Your task to perform on an android device: Go to wifi settings Image 0: 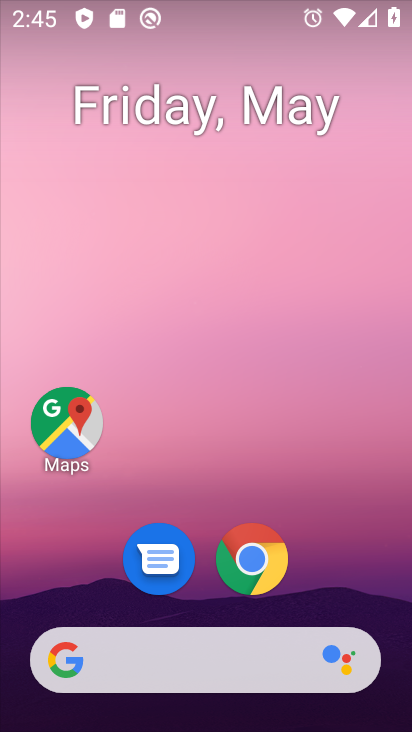
Step 0: drag from (387, 574) to (288, 98)
Your task to perform on an android device: Go to wifi settings Image 1: 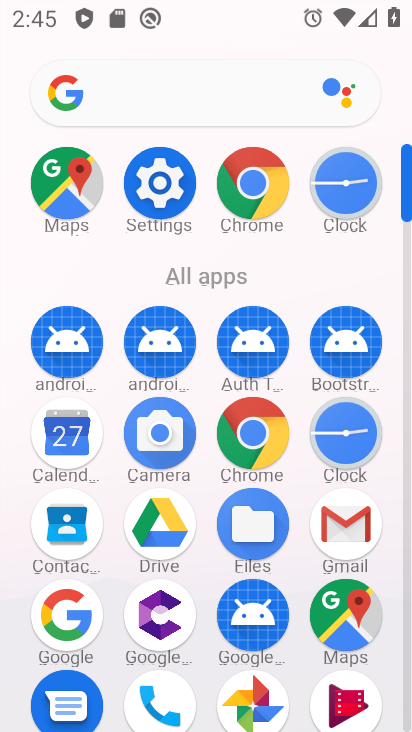
Step 1: click (161, 176)
Your task to perform on an android device: Go to wifi settings Image 2: 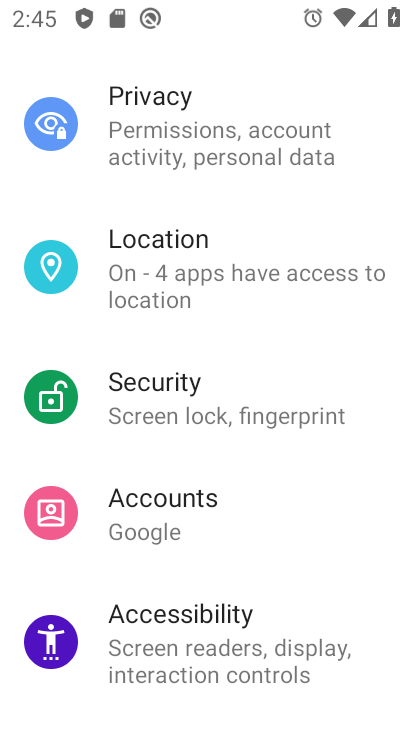
Step 2: drag from (219, 264) to (302, 724)
Your task to perform on an android device: Go to wifi settings Image 3: 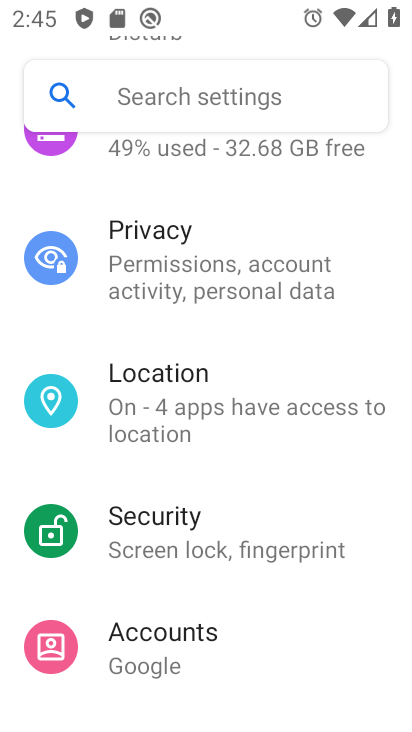
Step 3: drag from (278, 245) to (328, 580)
Your task to perform on an android device: Go to wifi settings Image 4: 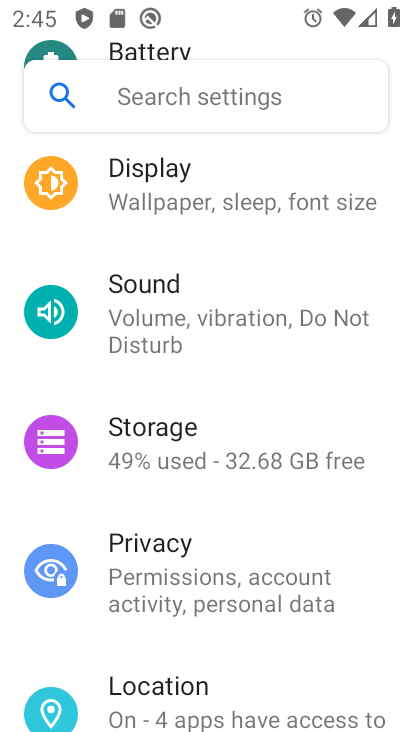
Step 4: drag from (234, 200) to (313, 720)
Your task to perform on an android device: Go to wifi settings Image 5: 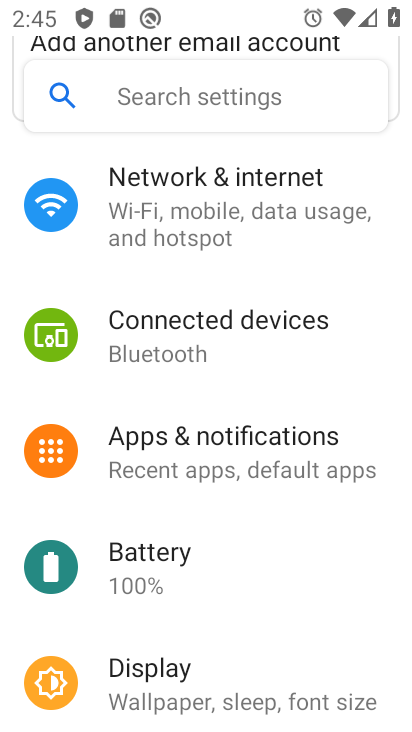
Step 5: click (242, 229)
Your task to perform on an android device: Go to wifi settings Image 6: 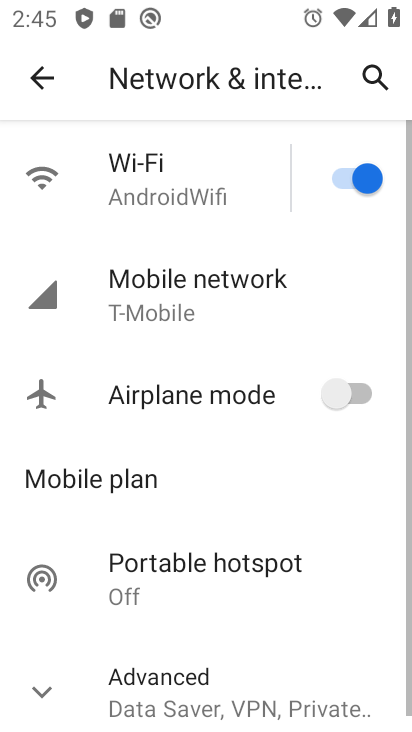
Step 6: task complete